Your task to perform on an android device: change the clock style Image 0: 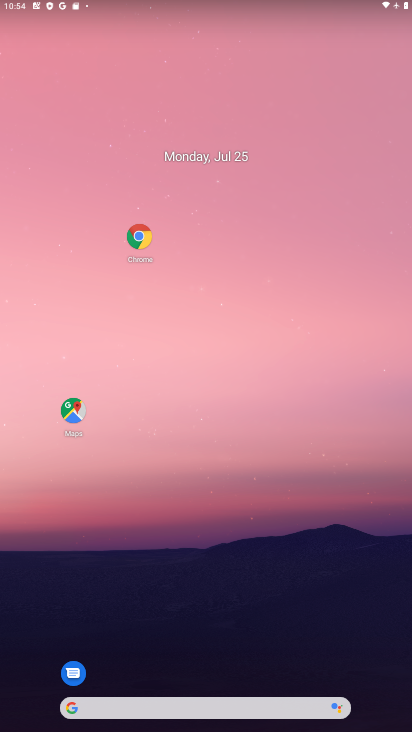
Step 0: drag from (315, 642) to (285, 105)
Your task to perform on an android device: change the clock style Image 1: 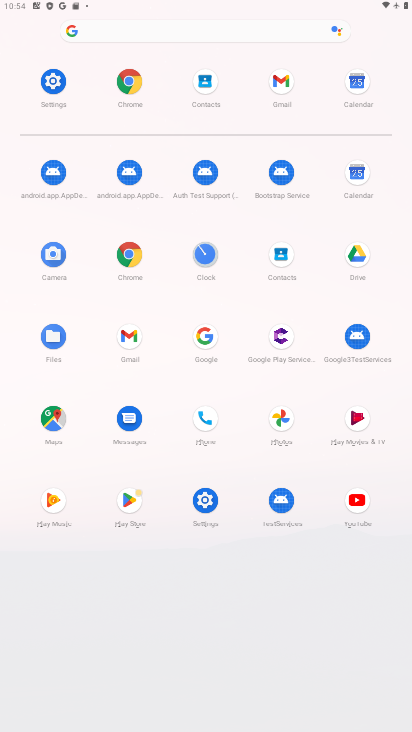
Step 1: click (207, 255)
Your task to perform on an android device: change the clock style Image 2: 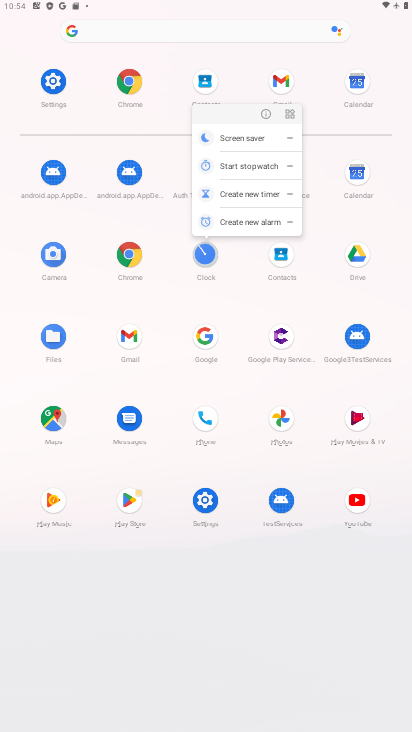
Step 2: click (170, 133)
Your task to perform on an android device: change the clock style Image 3: 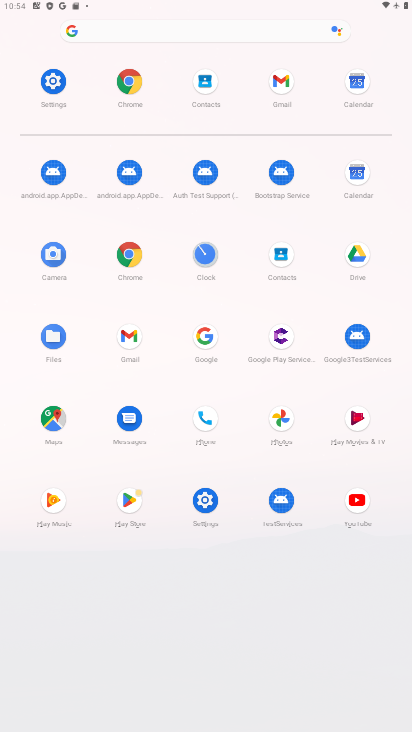
Step 3: click (200, 249)
Your task to perform on an android device: change the clock style Image 4: 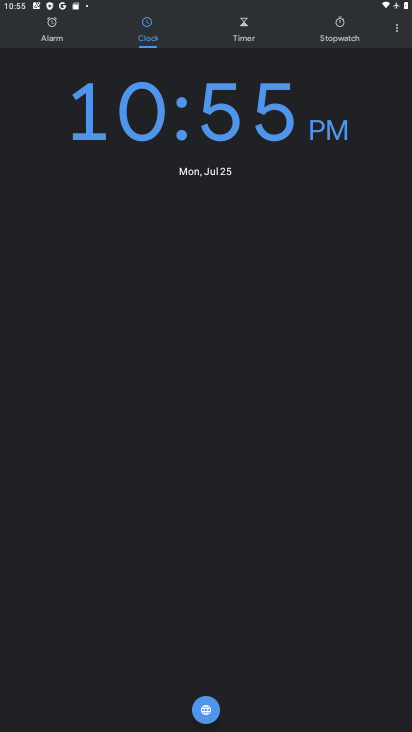
Step 4: task complete